Your task to perform on an android device: Show me popular videos on Youtube Image 0: 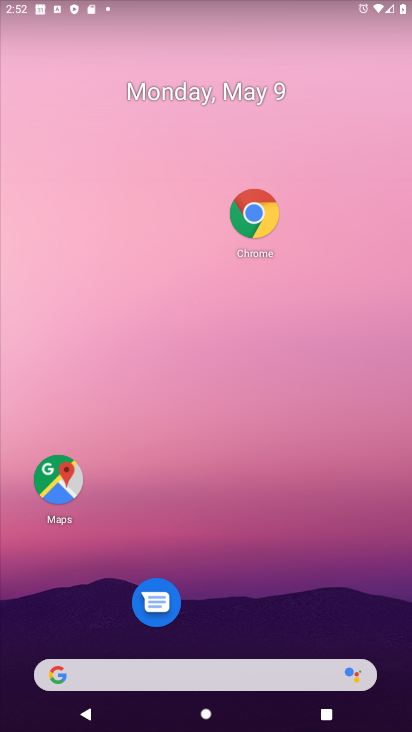
Step 0: drag from (284, 638) to (283, 220)
Your task to perform on an android device: Show me popular videos on Youtube Image 1: 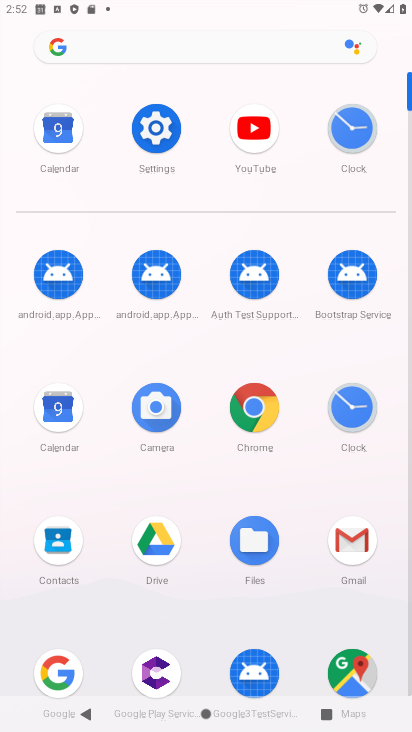
Step 1: click (261, 155)
Your task to perform on an android device: Show me popular videos on Youtube Image 2: 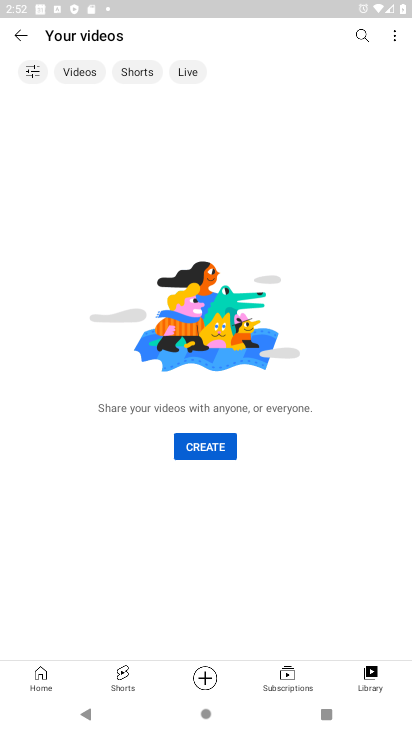
Step 2: click (54, 676)
Your task to perform on an android device: Show me popular videos on Youtube Image 3: 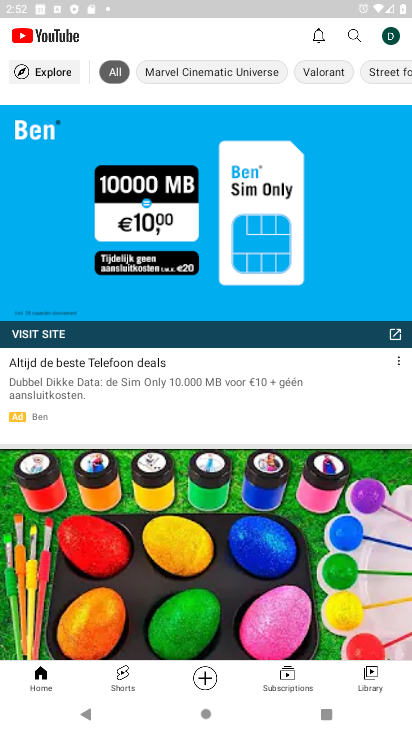
Step 3: task complete